Your task to perform on an android device: check battery use Image 0: 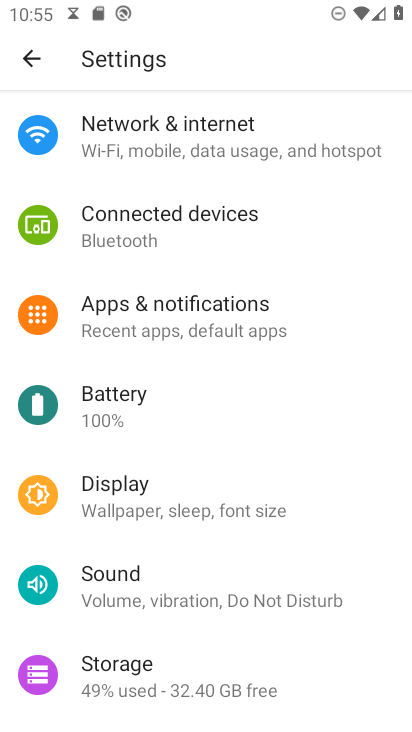
Step 0: click (101, 396)
Your task to perform on an android device: check battery use Image 1: 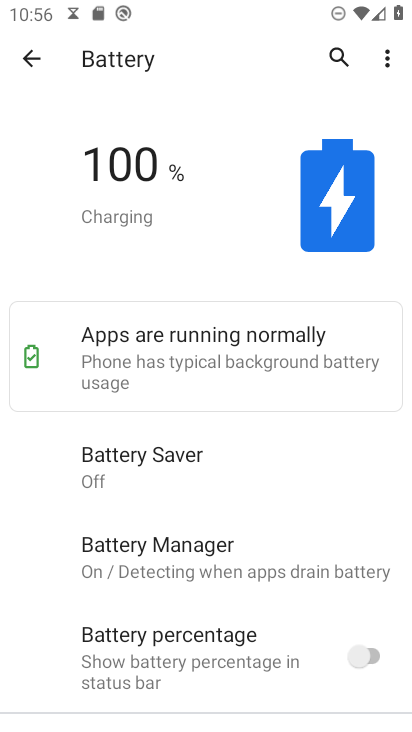
Step 1: click (387, 60)
Your task to perform on an android device: check battery use Image 2: 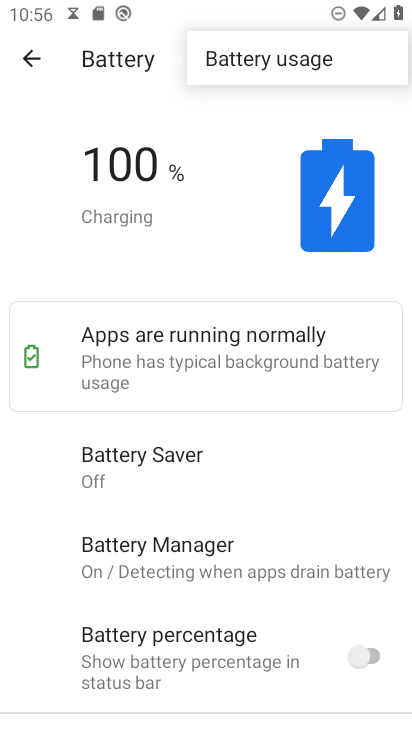
Step 2: click (232, 57)
Your task to perform on an android device: check battery use Image 3: 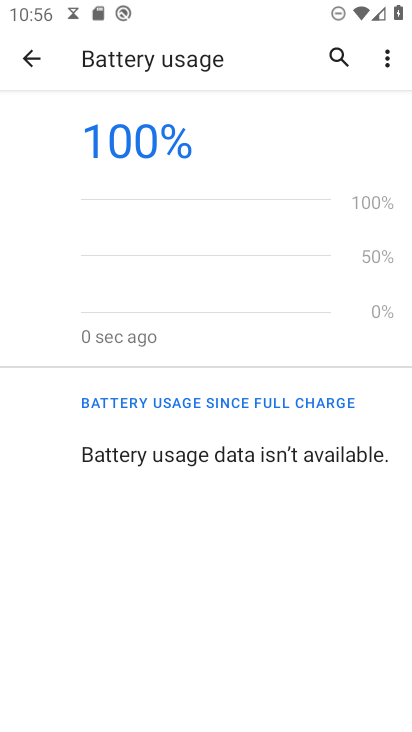
Step 3: task complete